Your task to perform on an android device: check battery use Image 0: 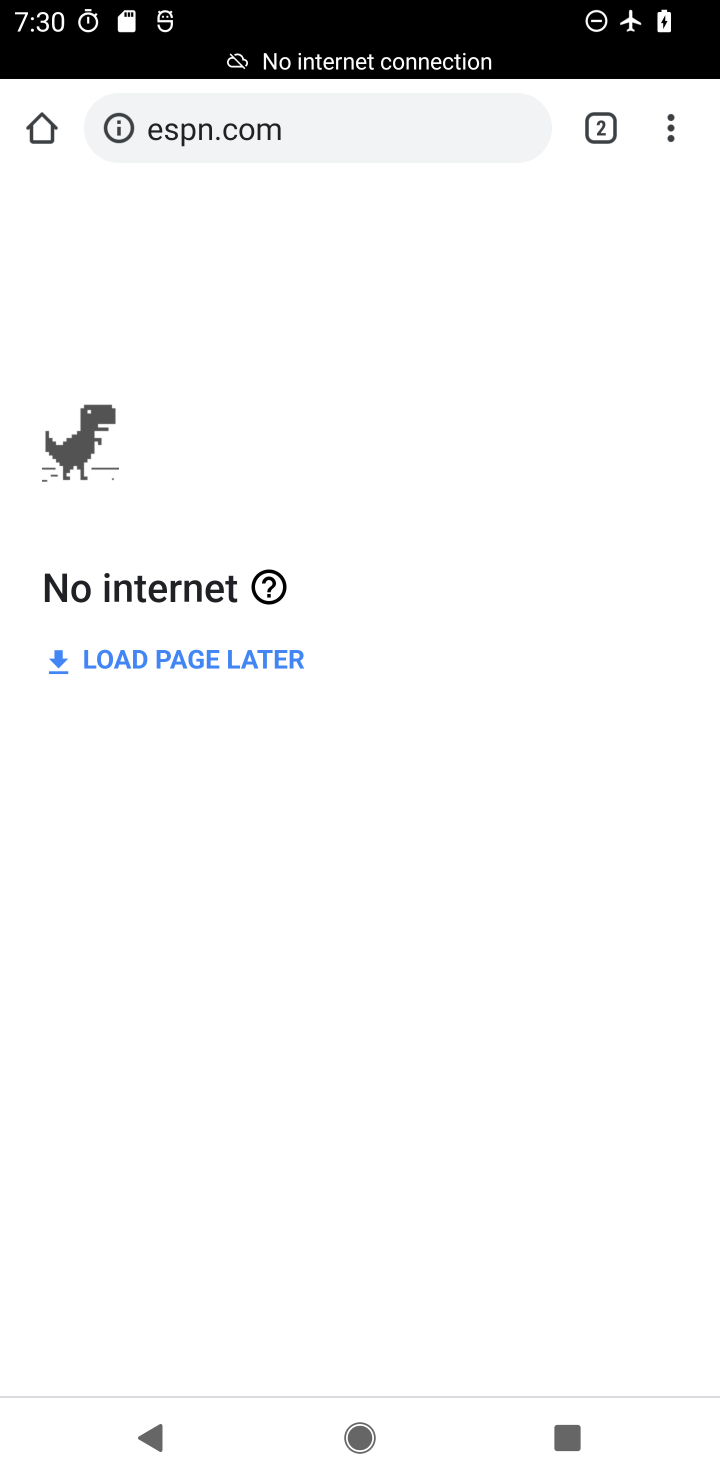
Step 0: press home button
Your task to perform on an android device: check battery use Image 1: 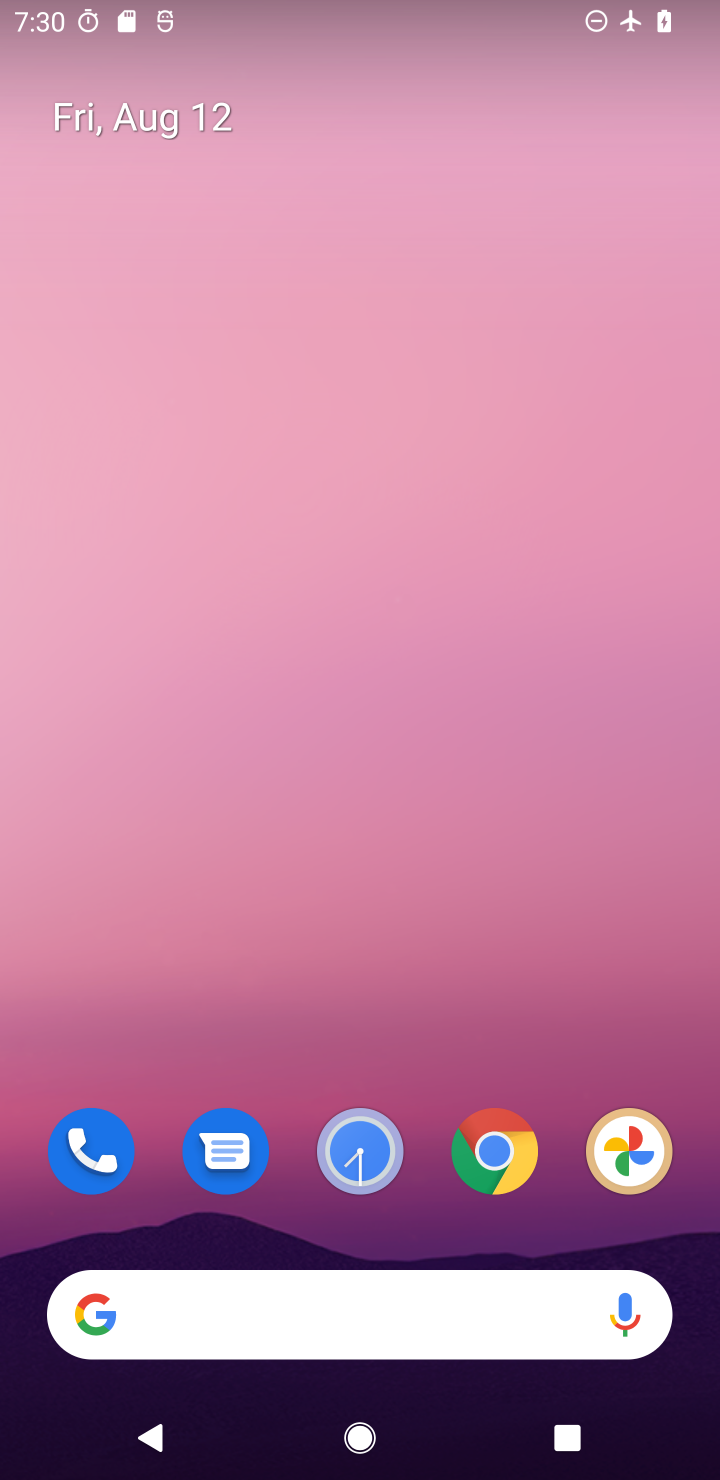
Step 1: drag from (416, 1073) to (491, 274)
Your task to perform on an android device: check battery use Image 2: 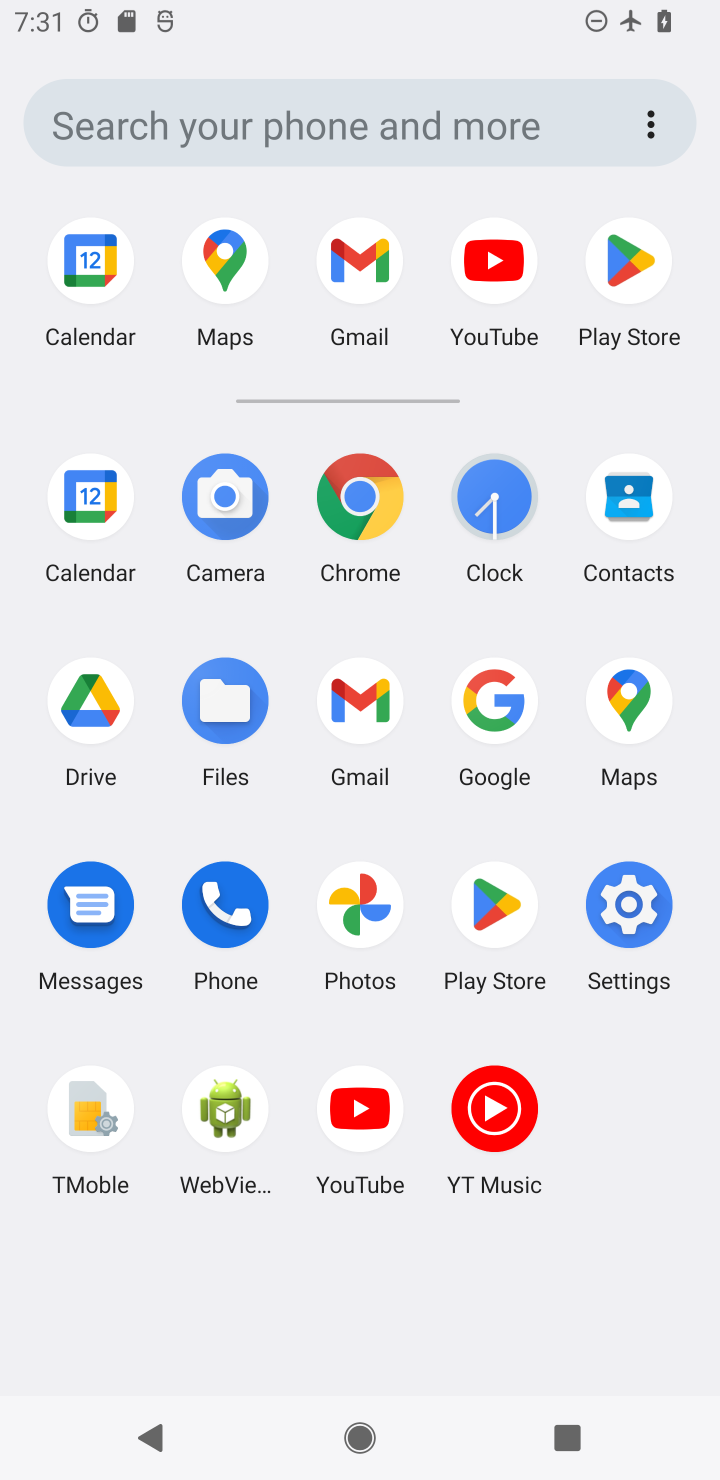
Step 2: click (633, 904)
Your task to perform on an android device: check battery use Image 3: 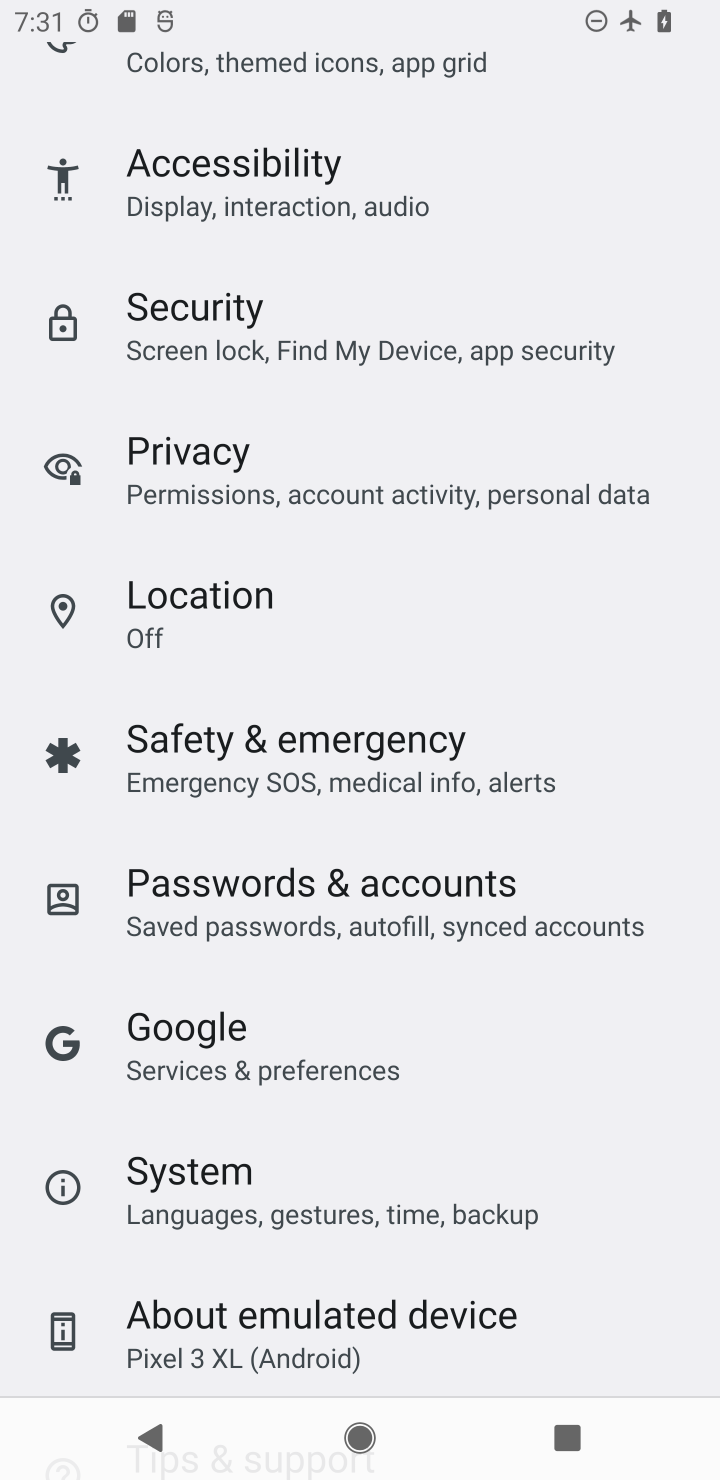
Step 3: drag from (533, 308) to (310, 1271)
Your task to perform on an android device: check battery use Image 4: 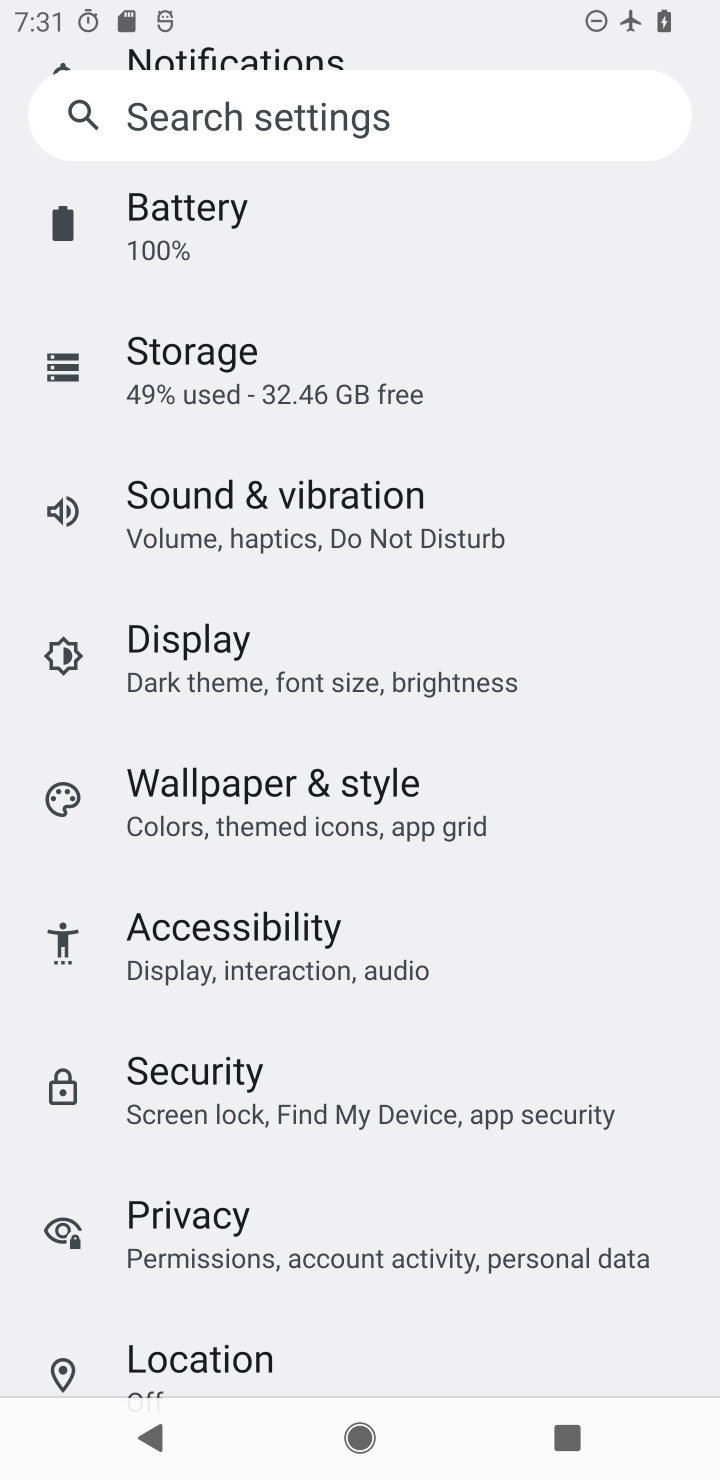
Step 4: click (219, 246)
Your task to perform on an android device: check battery use Image 5: 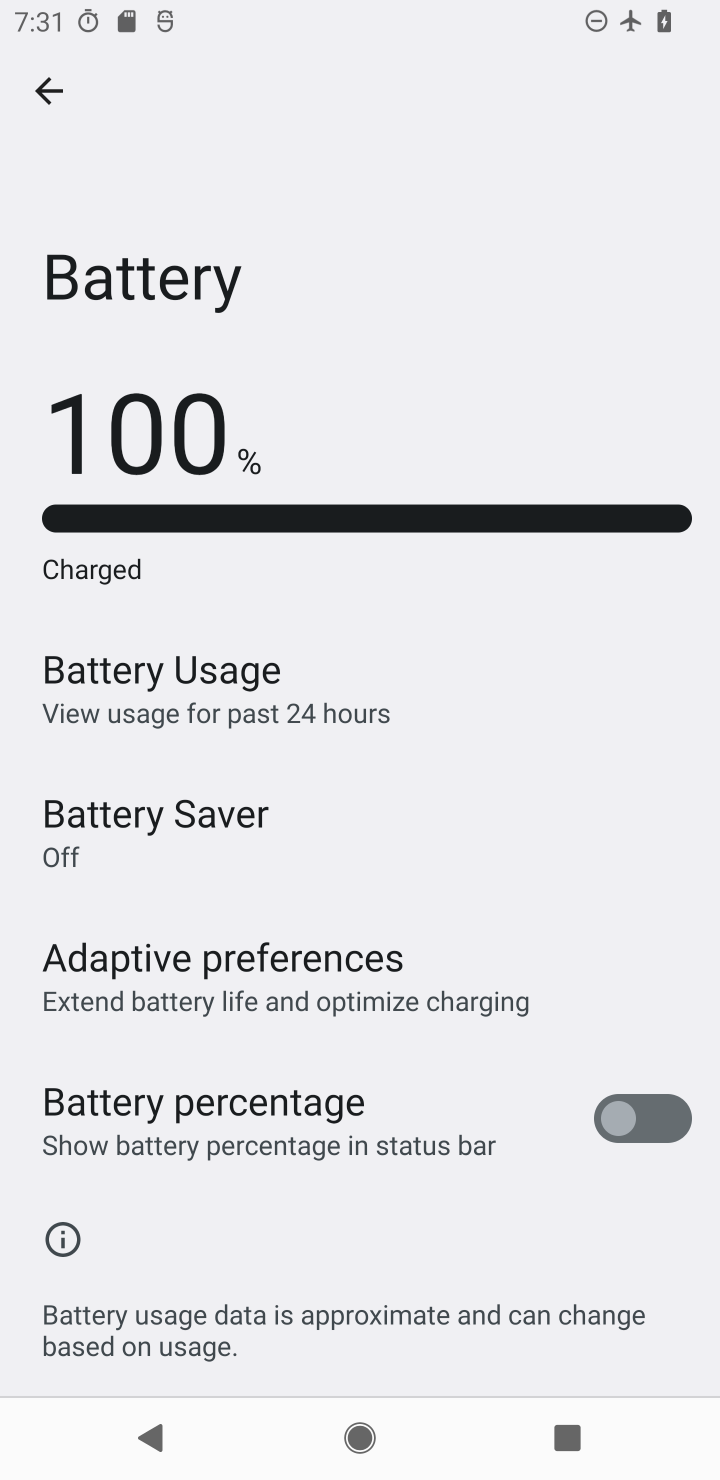
Step 5: click (308, 712)
Your task to perform on an android device: check battery use Image 6: 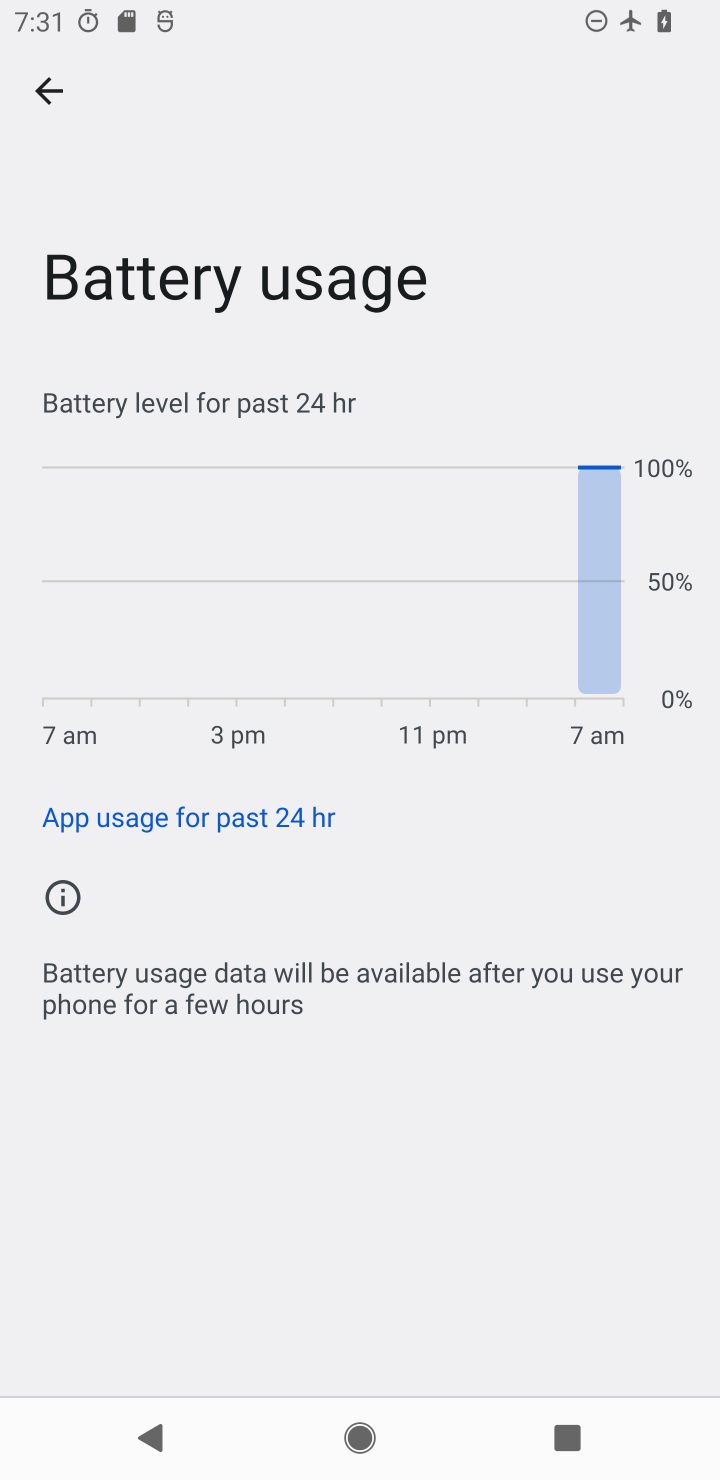
Step 6: task complete